Your task to perform on an android device: Open the calendar app, open the side menu, and click the "Day" option Image 0: 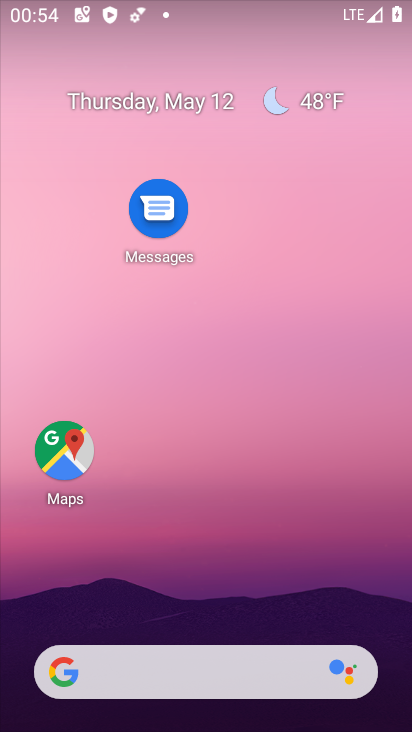
Step 0: drag from (205, 645) to (88, 2)
Your task to perform on an android device: Open the calendar app, open the side menu, and click the "Day" option Image 1: 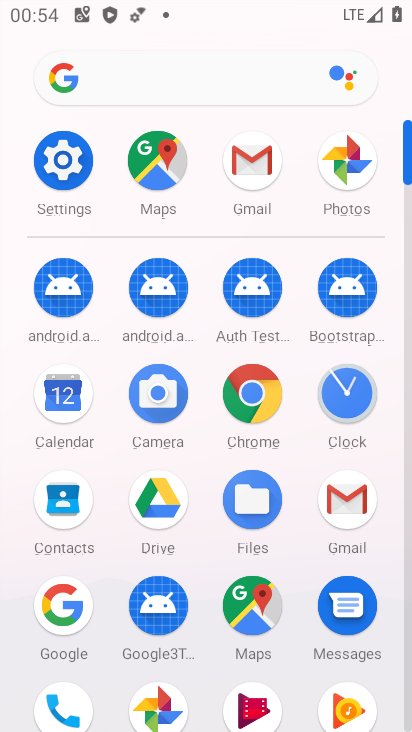
Step 1: click (52, 378)
Your task to perform on an android device: Open the calendar app, open the side menu, and click the "Day" option Image 2: 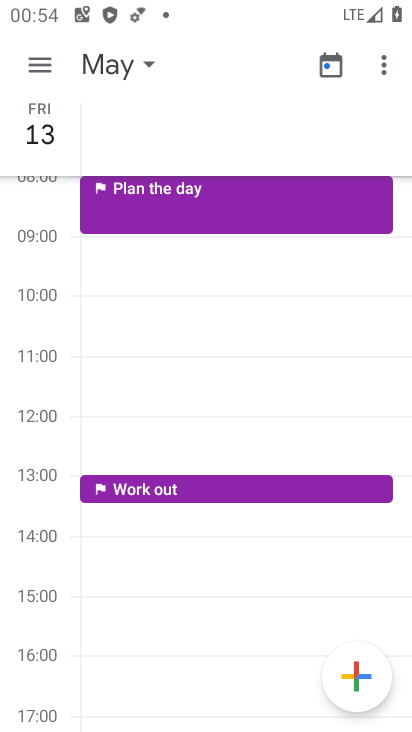
Step 2: click (25, 62)
Your task to perform on an android device: Open the calendar app, open the side menu, and click the "Day" option Image 3: 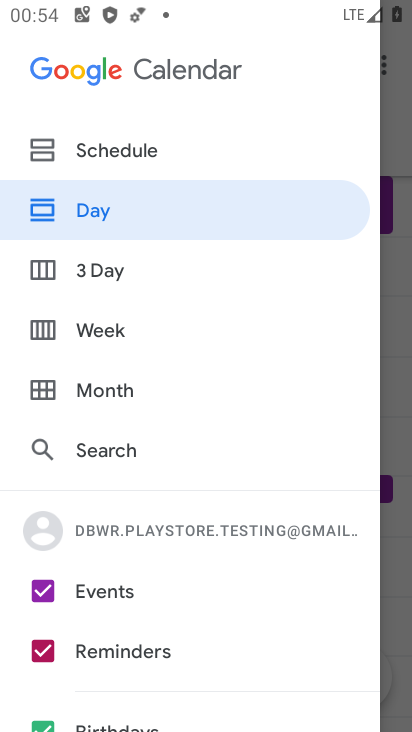
Step 3: click (93, 211)
Your task to perform on an android device: Open the calendar app, open the side menu, and click the "Day" option Image 4: 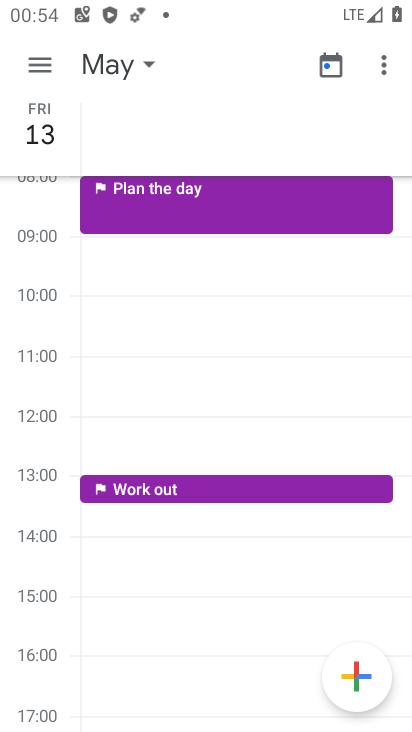
Step 4: task complete